Your task to perform on an android device: Check the latest 3D printers on Target. Image 0: 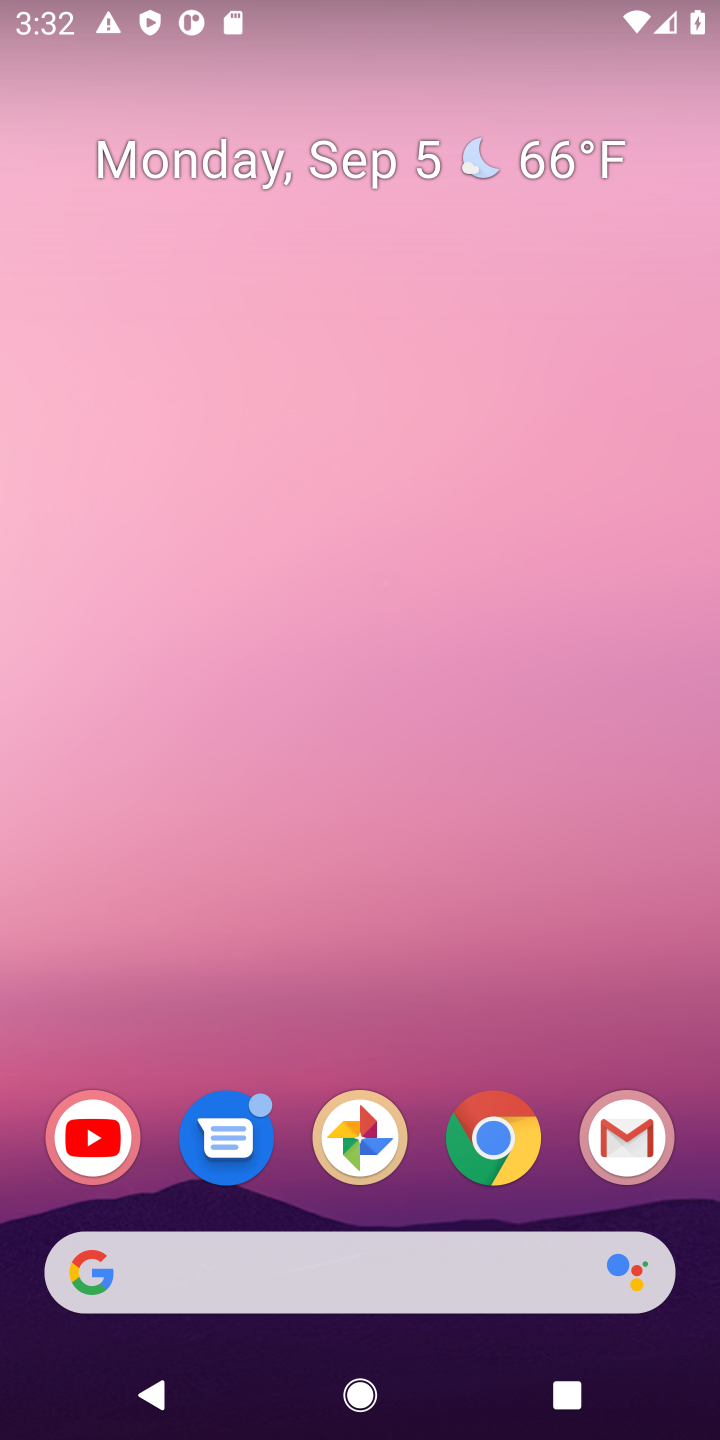
Step 0: click (493, 1156)
Your task to perform on an android device: Check the latest 3D printers on Target. Image 1: 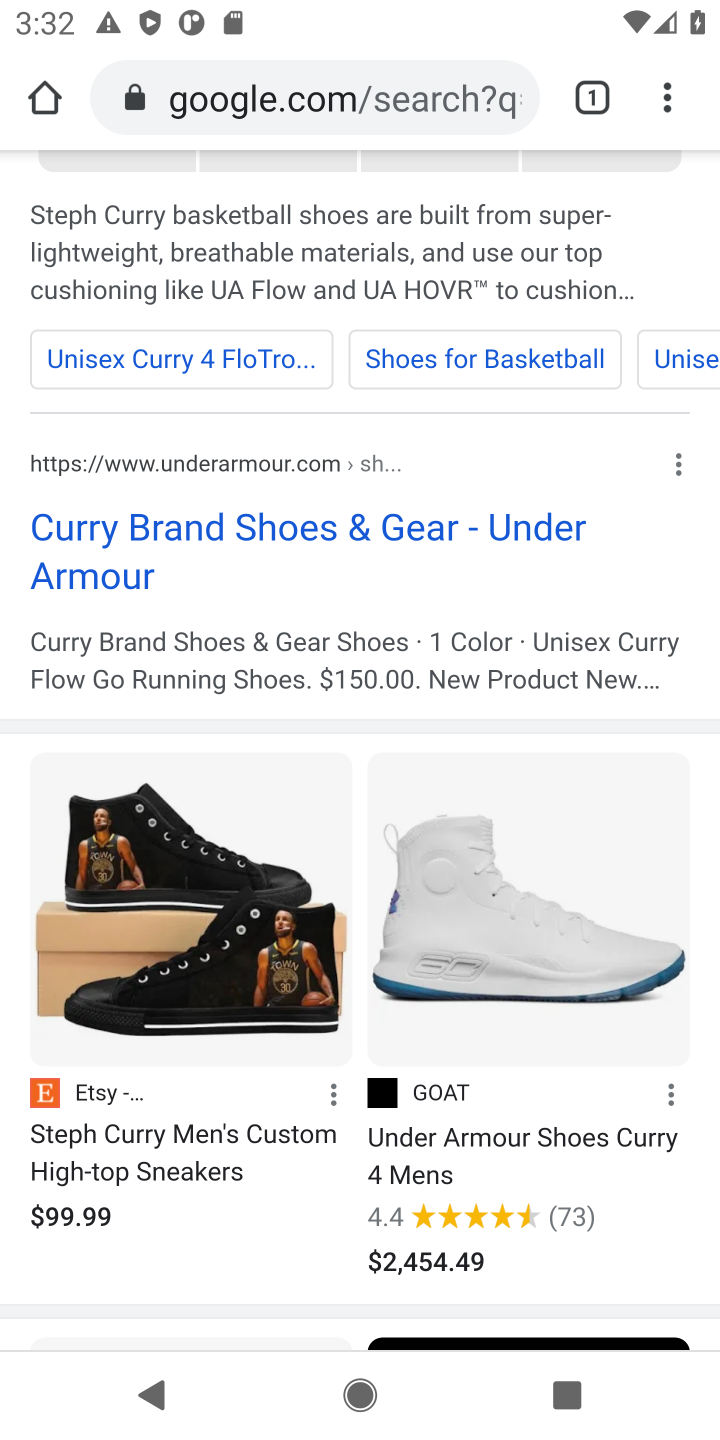
Step 1: click (300, 109)
Your task to perform on an android device: Check the latest 3D printers on Target. Image 2: 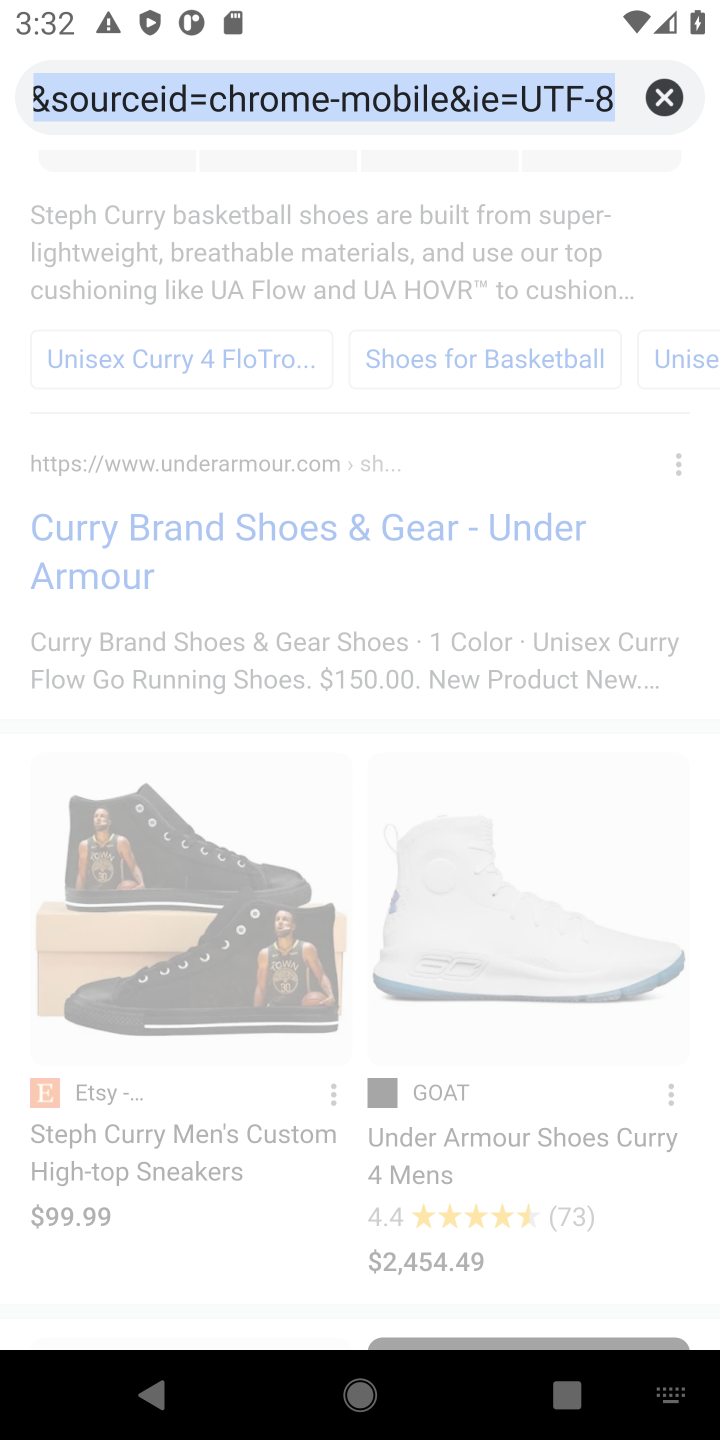
Step 2: type "target"
Your task to perform on an android device: Check the latest 3D printers on Target. Image 3: 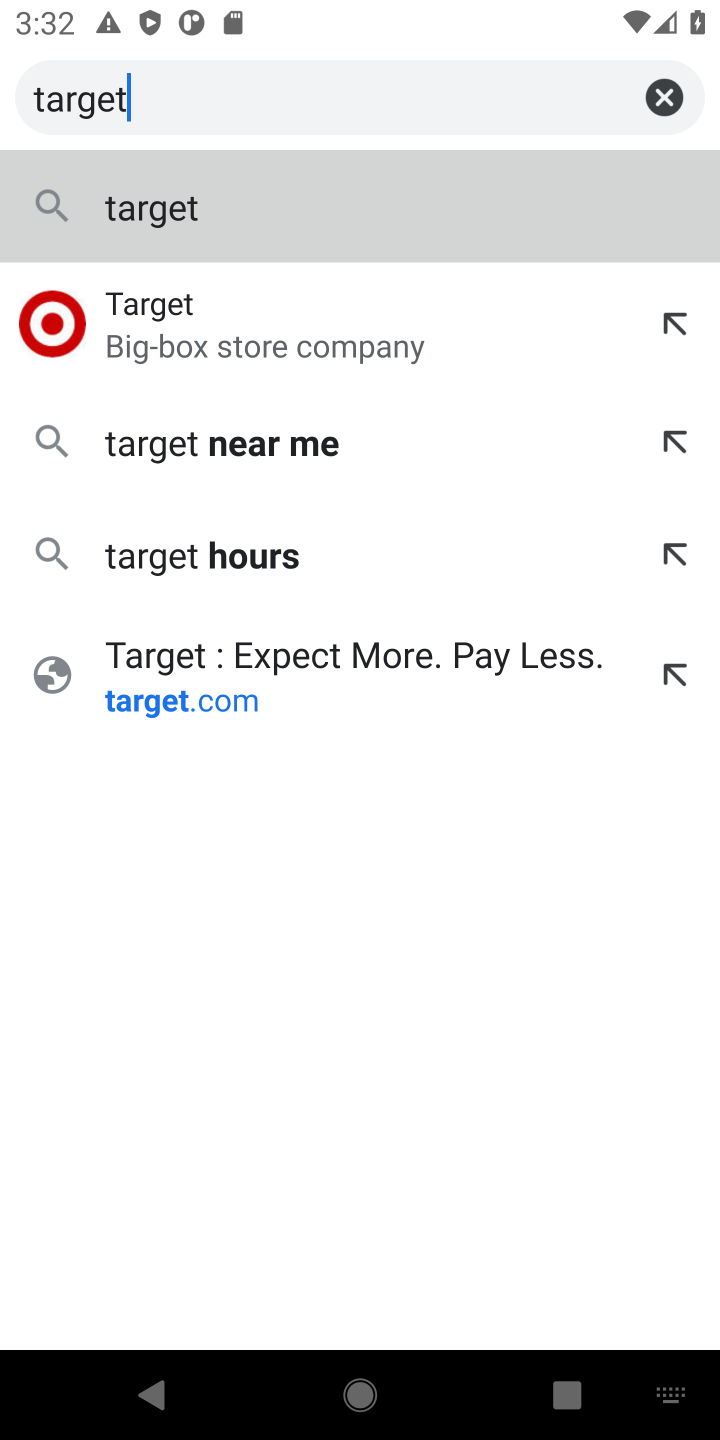
Step 3: click (339, 699)
Your task to perform on an android device: Check the latest 3D printers on Target. Image 4: 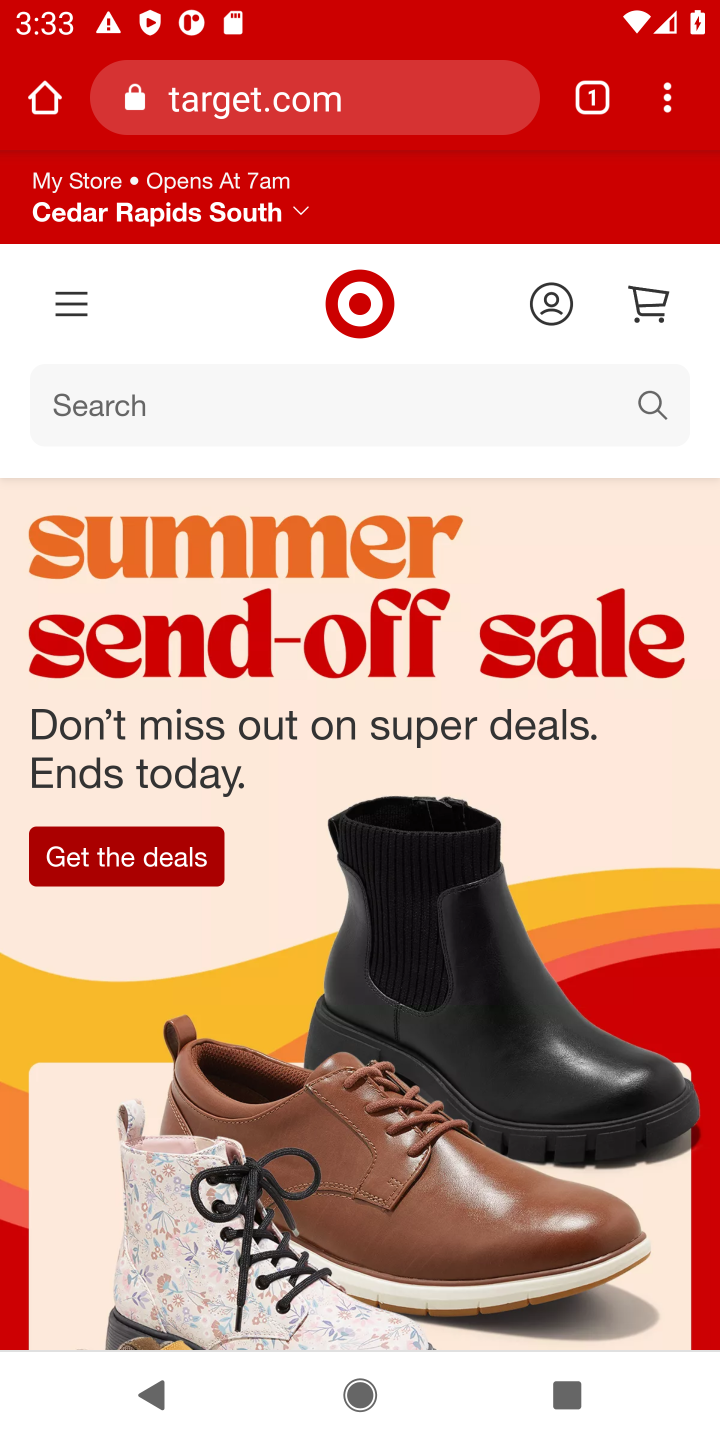
Step 4: click (410, 395)
Your task to perform on an android device: Check the latest 3D printers on Target. Image 5: 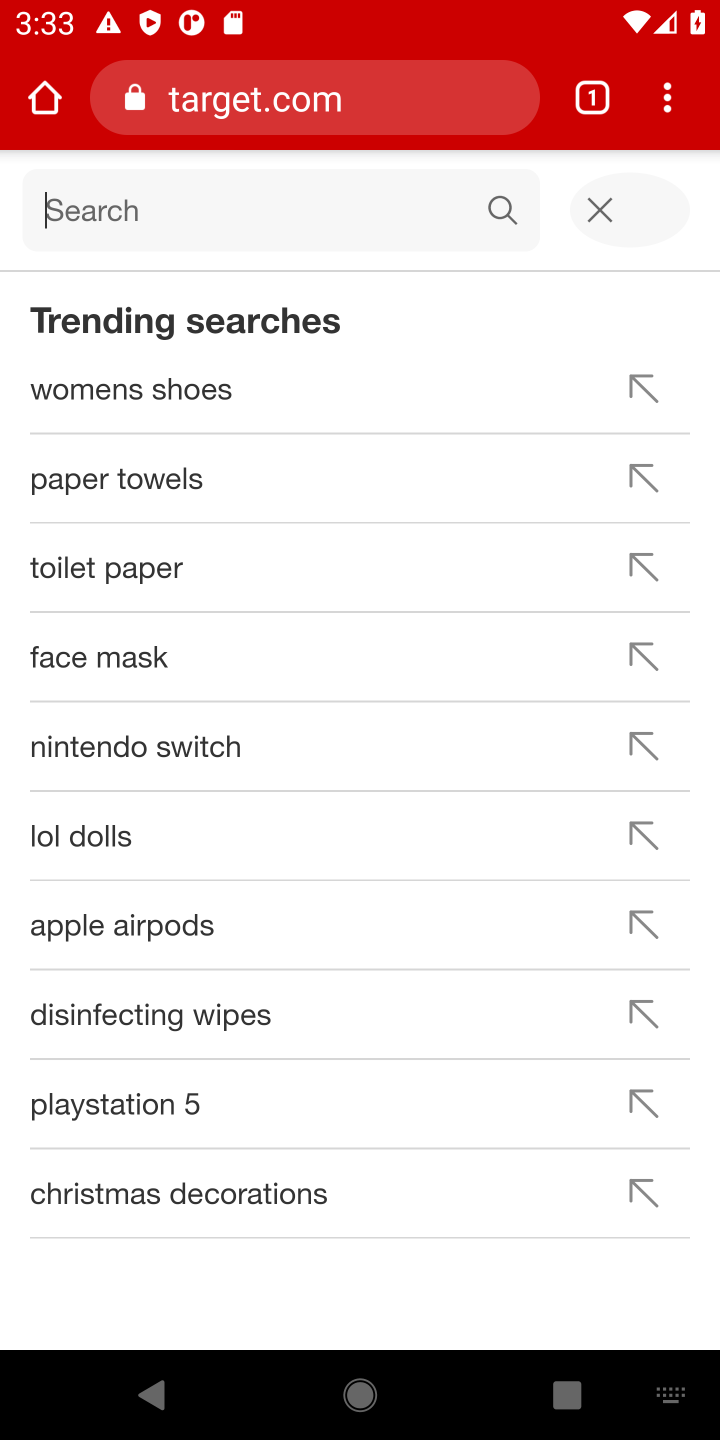
Step 5: type "latest 3d printers"
Your task to perform on an android device: Check the latest 3D printers on Target. Image 6: 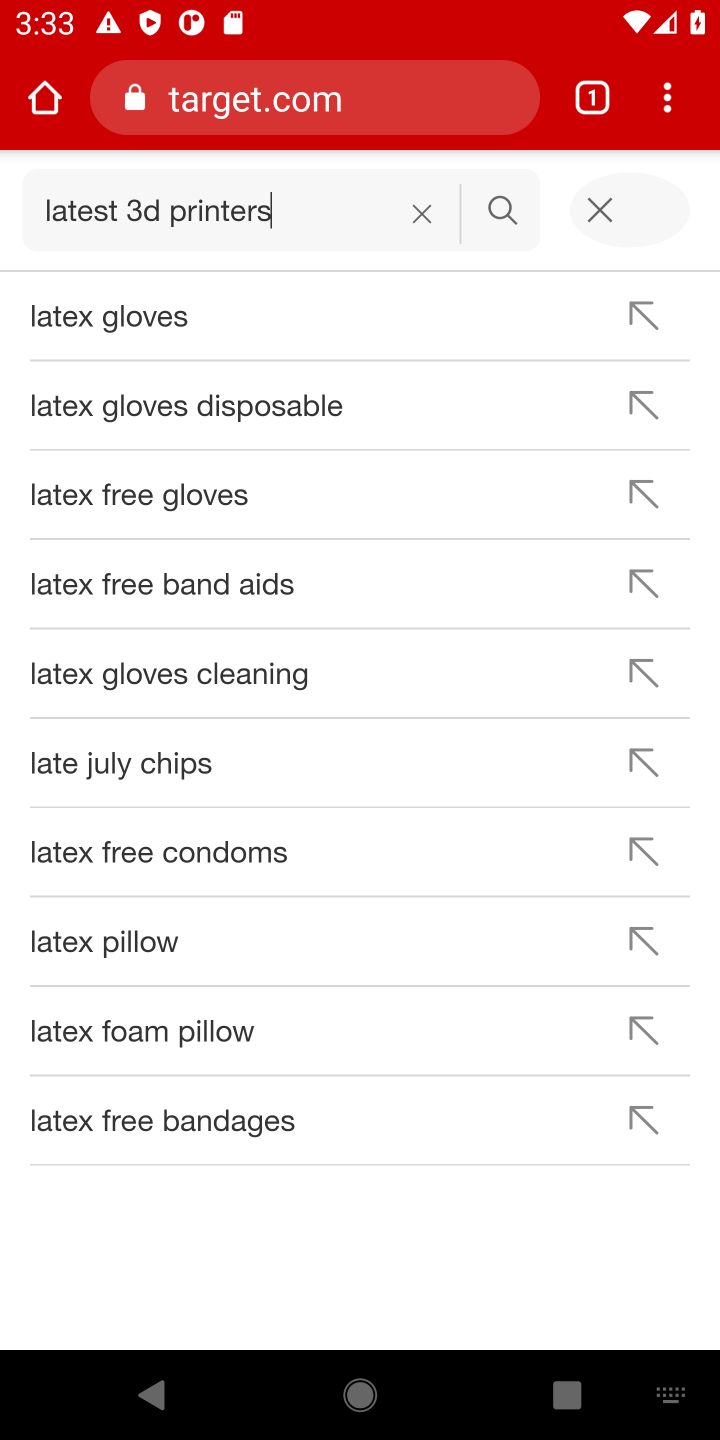
Step 6: click (521, 224)
Your task to perform on an android device: Check the latest 3D printers on Target. Image 7: 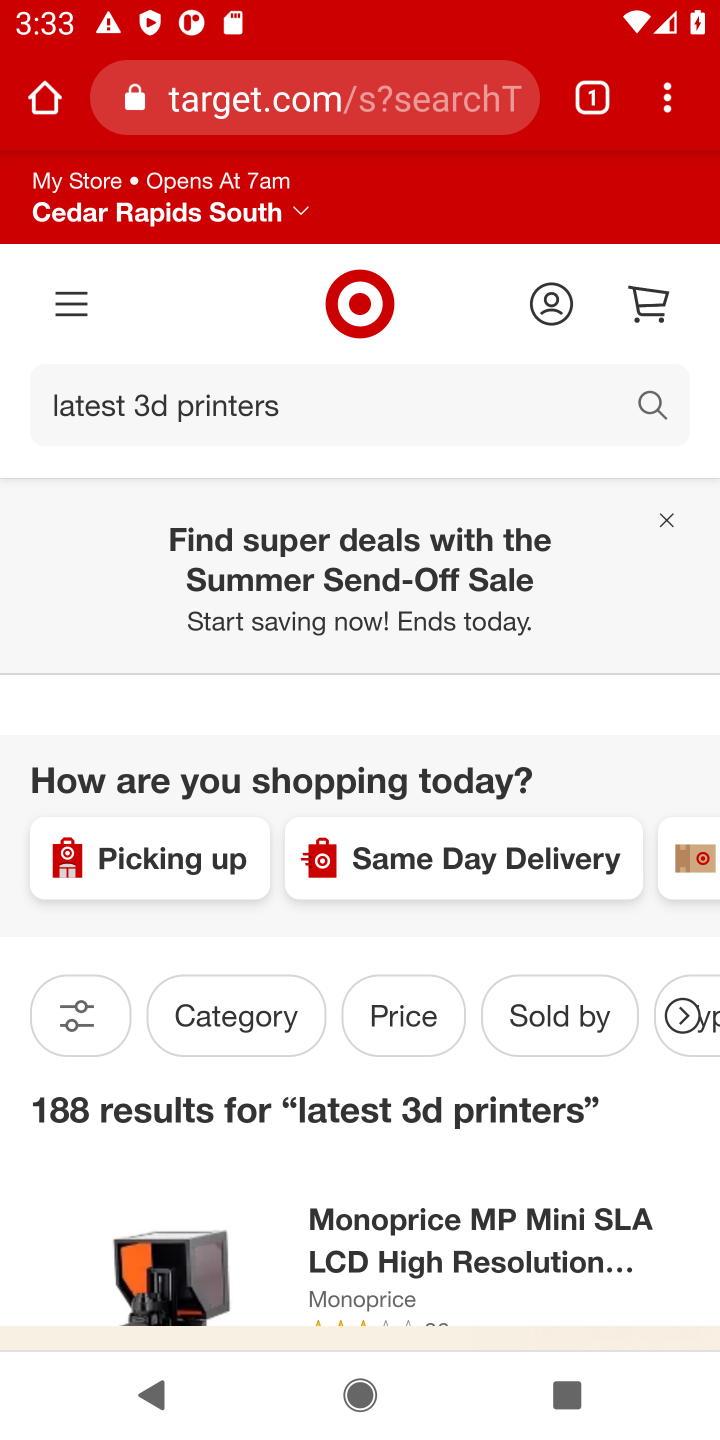
Step 7: task complete